Your task to perform on an android device: find which apps use the phone's location Image 0: 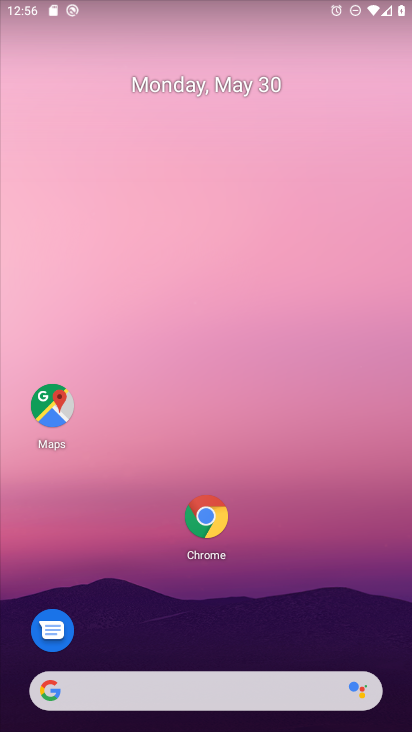
Step 0: press home button
Your task to perform on an android device: find which apps use the phone's location Image 1: 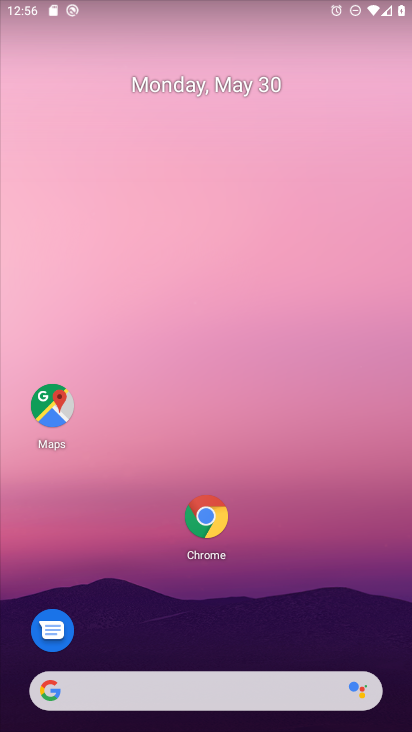
Step 1: drag from (177, 703) to (373, 0)
Your task to perform on an android device: find which apps use the phone's location Image 2: 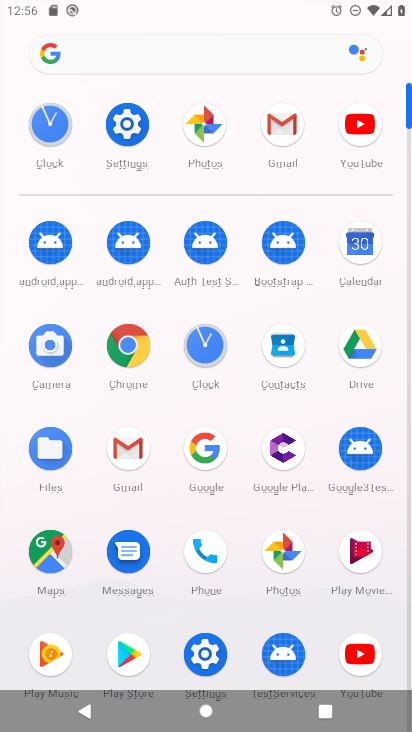
Step 2: click (132, 125)
Your task to perform on an android device: find which apps use the phone's location Image 3: 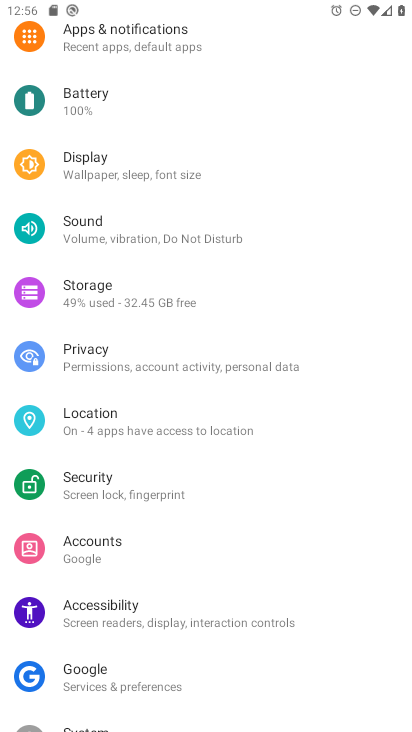
Step 3: click (89, 423)
Your task to perform on an android device: find which apps use the phone's location Image 4: 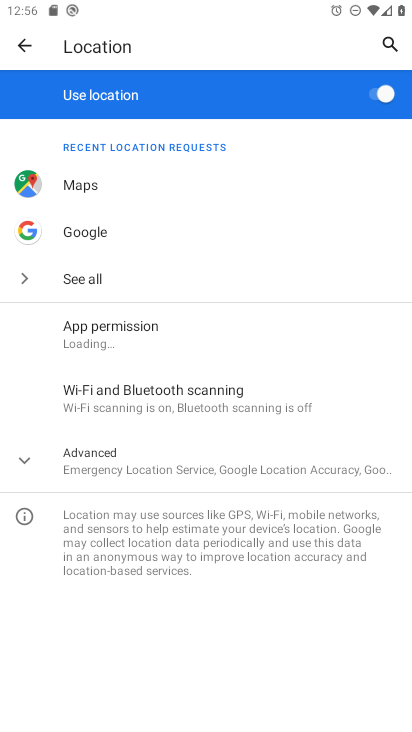
Step 4: click (100, 335)
Your task to perform on an android device: find which apps use the phone's location Image 5: 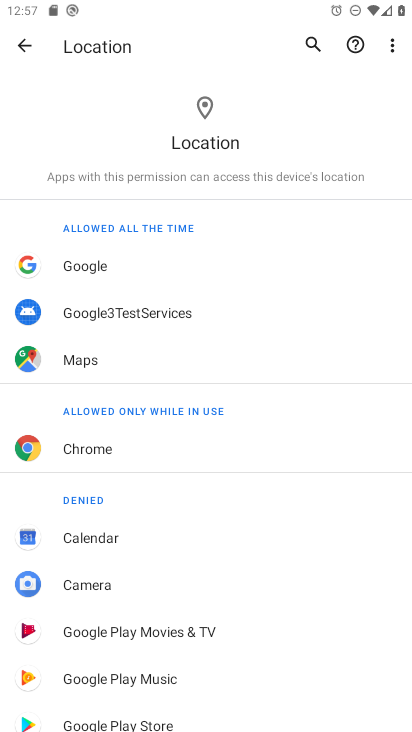
Step 5: drag from (259, 668) to (389, 291)
Your task to perform on an android device: find which apps use the phone's location Image 6: 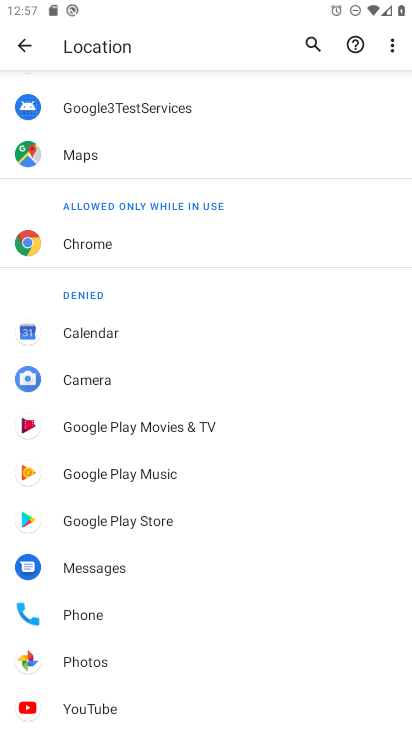
Step 6: click (81, 616)
Your task to perform on an android device: find which apps use the phone's location Image 7: 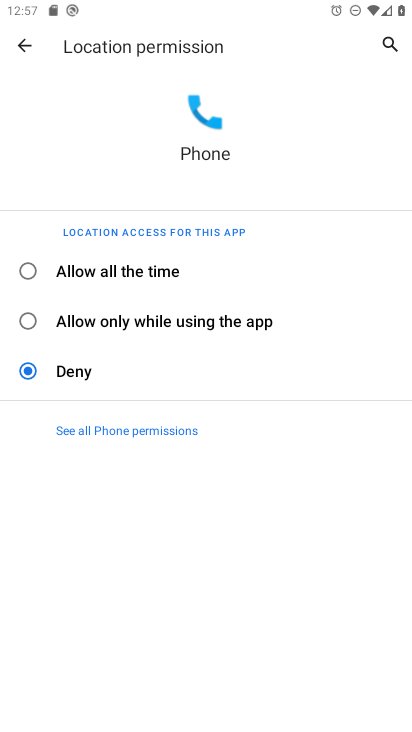
Step 7: task complete